Your task to perform on an android device: turn on bluetooth scan Image 0: 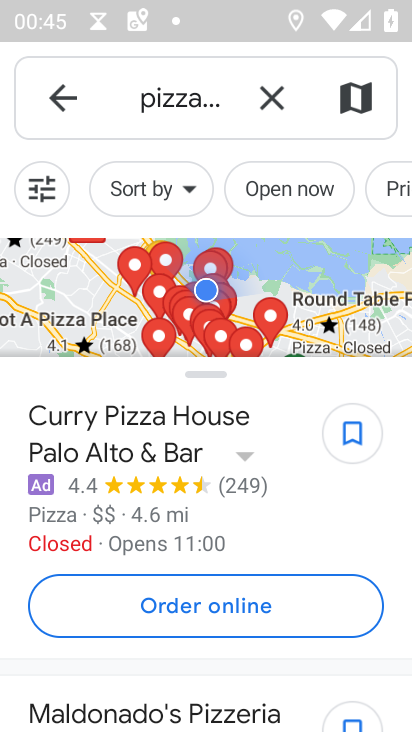
Step 0: press home button
Your task to perform on an android device: turn on bluetooth scan Image 1: 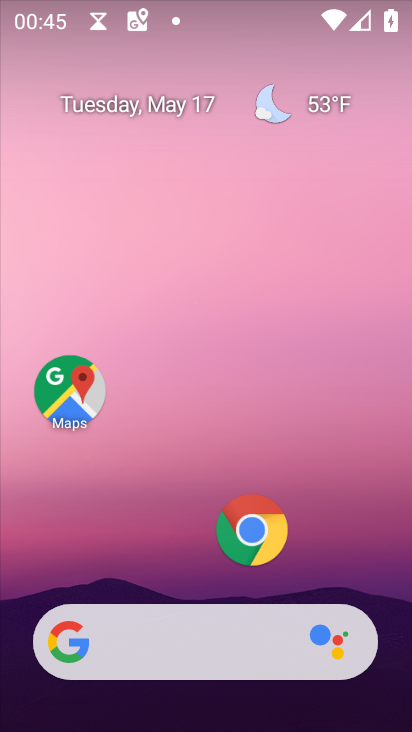
Step 1: click (346, 3)
Your task to perform on an android device: turn on bluetooth scan Image 2: 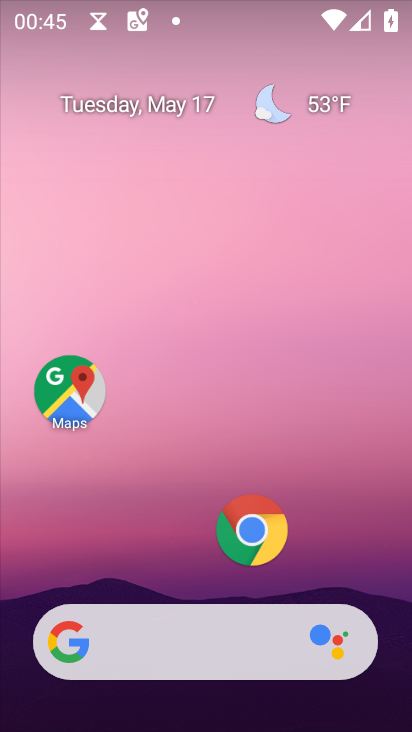
Step 2: drag from (339, 543) to (377, 86)
Your task to perform on an android device: turn on bluetooth scan Image 3: 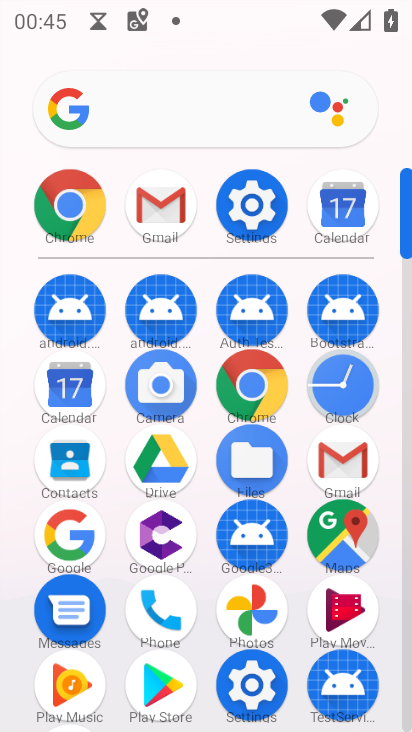
Step 3: click (246, 204)
Your task to perform on an android device: turn on bluetooth scan Image 4: 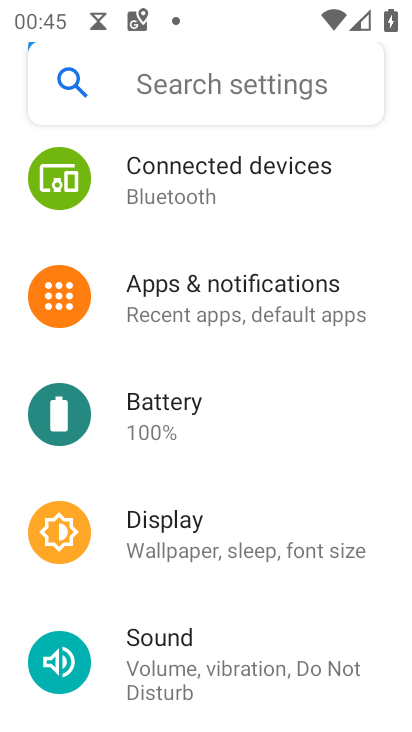
Step 4: drag from (273, 432) to (280, 204)
Your task to perform on an android device: turn on bluetooth scan Image 5: 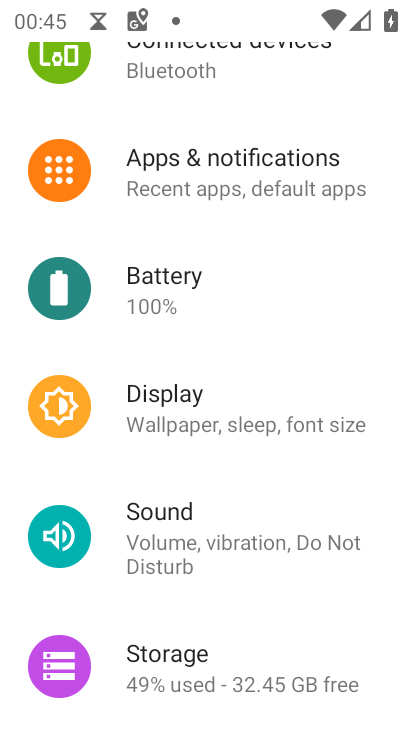
Step 5: drag from (231, 694) to (292, 250)
Your task to perform on an android device: turn on bluetooth scan Image 6: 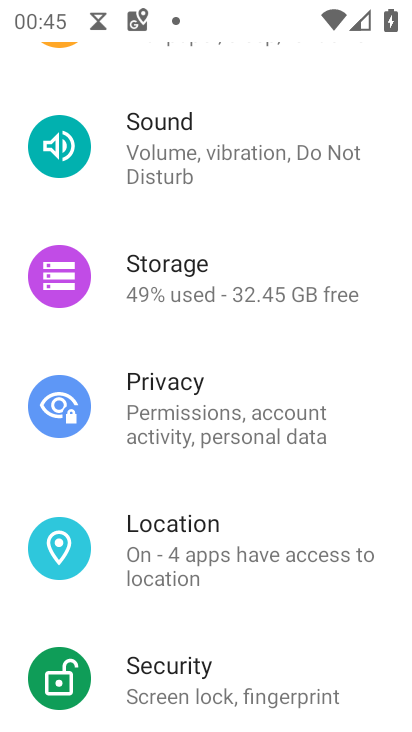
Step 6: click (214, 519)
Your task to perform on an android device: turn on bluetooth scan Image 7: 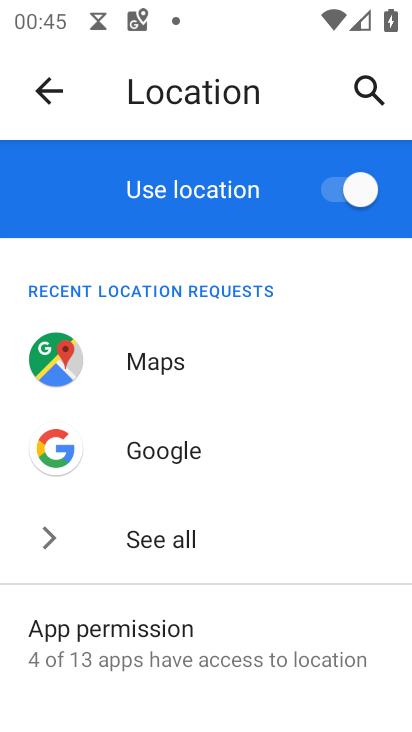
Step 7: drag from (194, 642) to (234, 188)
Your task to perform on an android device: turn on bluetooth scan Image 8: 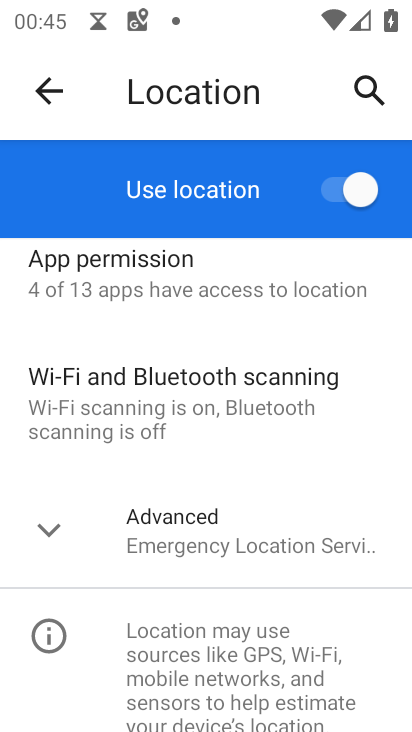
Step 8: click (149, 551)
Your task to perform on an android device: turn on bluetooth scan Image 9: 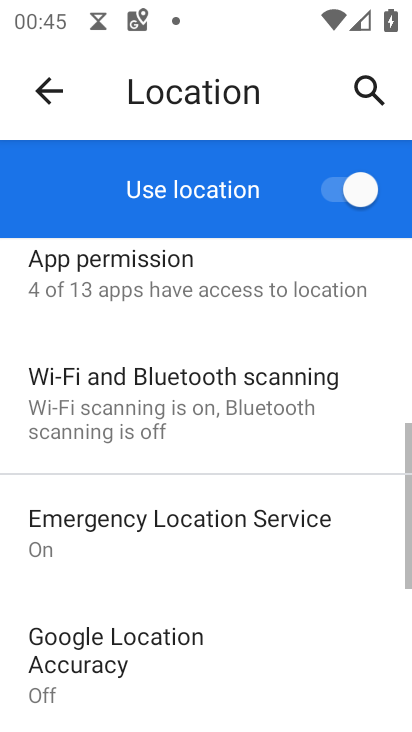
Step 9: drag from (238, 373) to (278, 408)
Your task to perform on an android device: turn on bluetooth scan Image 10: 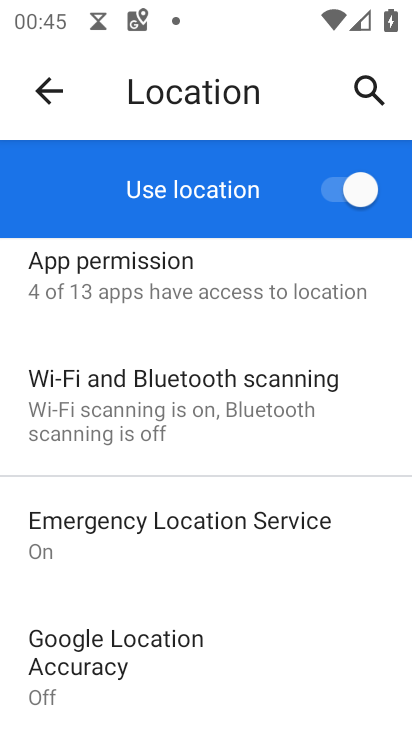
Step 10: click (209, 414)
Your task to perform on an android device: turn on bluetooth scan Image 11: 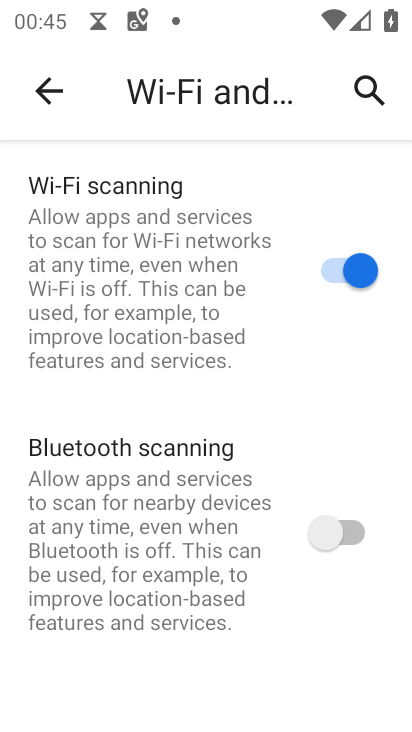
Step 11: click (332, 541)
Your task to perform on an android device: turn on bluetooth scan Image 12: 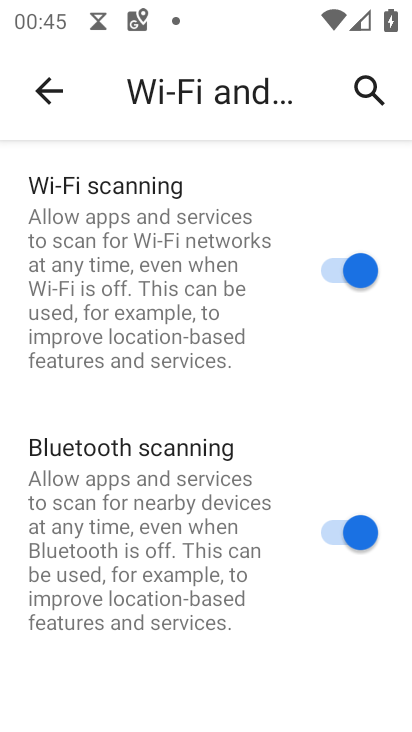
Step 12: task complete